Your task to perform on an android device: open sync settings in chrome Image 0: 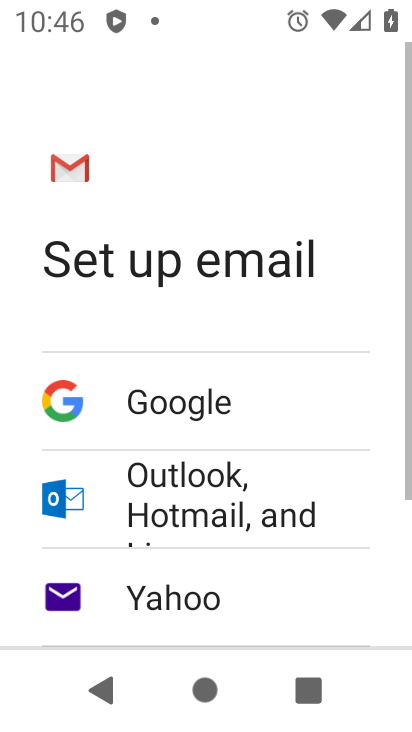
Step 0: press home button
Your task to perform on an android device: open sync settings in chrome Image 1: 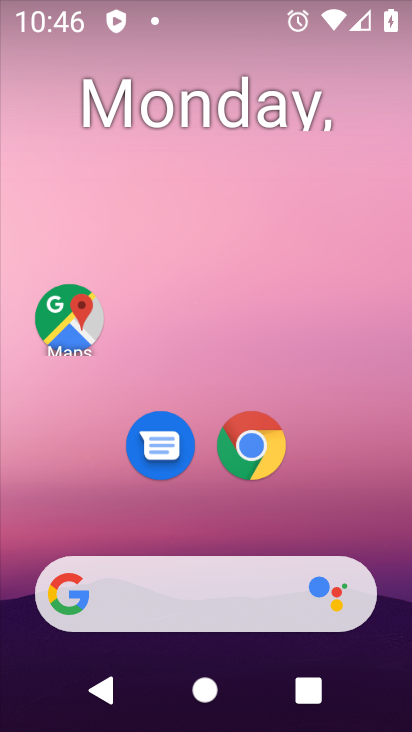
Step 1: click (263, 465)
Your task to perform on an android device: open sync settings in chrome Image 2: 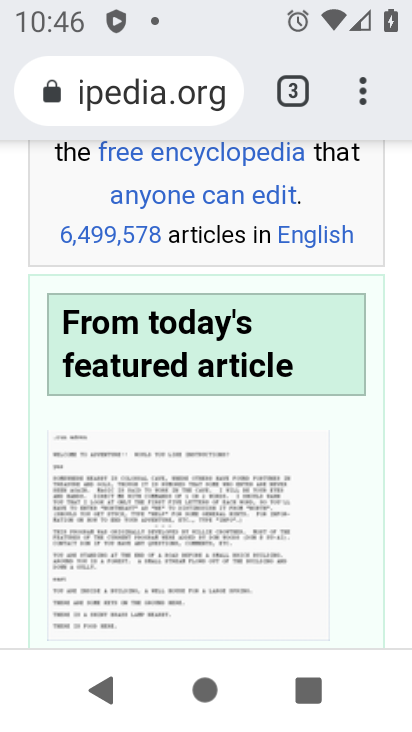
Step 2: click (361, 90)
Your task to perform on an android device: open sync settings in chrome Image 3: 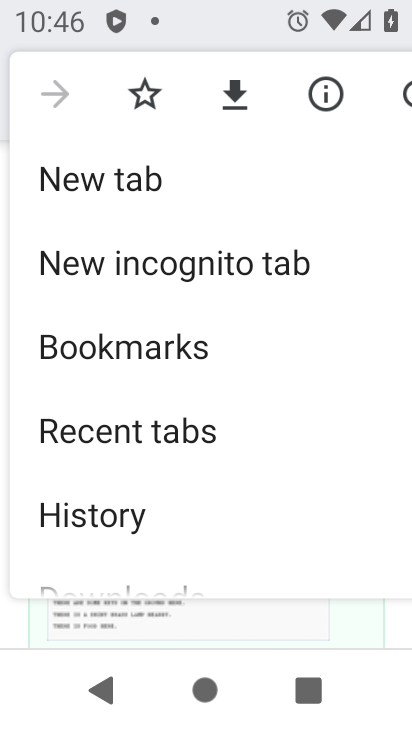
Step 3: drag from (161, 546) to (142, 192)
Your task to perform on an android device: open sync settings in chrome Image 4: 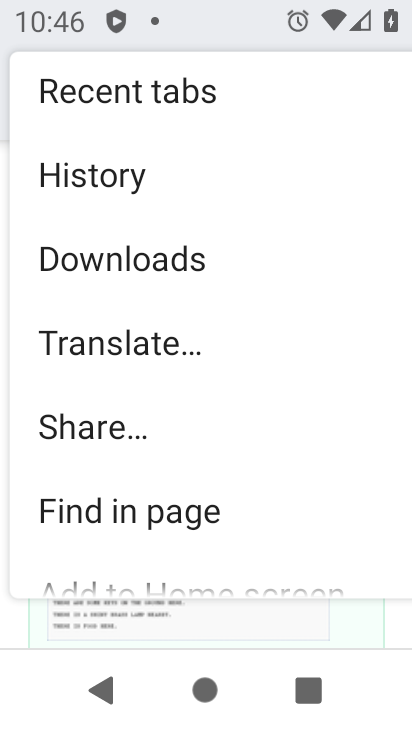
Step 4: drag from (117, 545) to (103, 270)
Your task to perform on an android device: open sync settings in chrome Image 5: 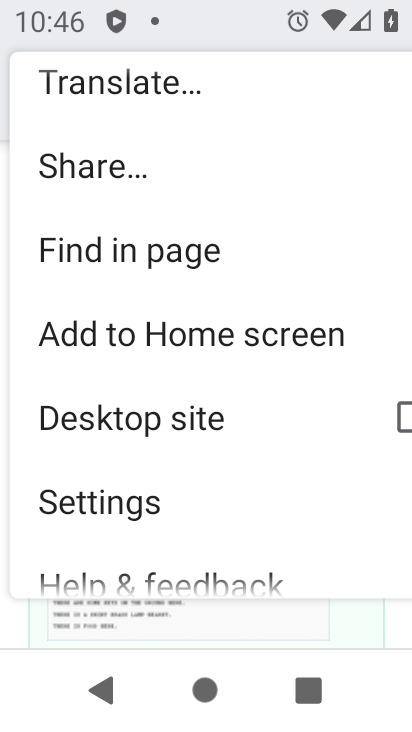
Step 5: click (106, 505)
Your task to perform on an android device: open sync settings in chrome Image 6: 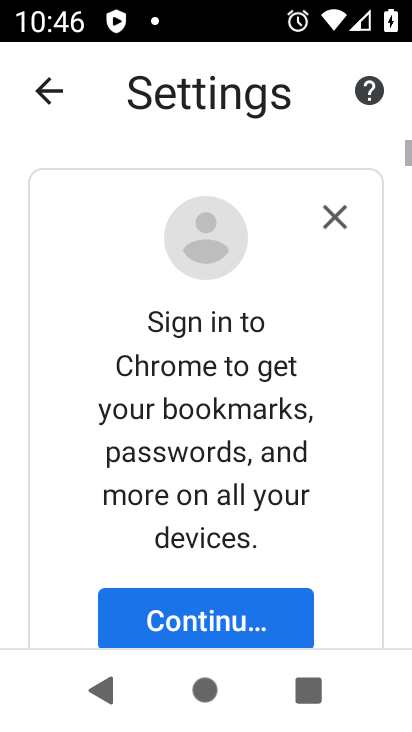
Step 6: drag from (285, 586) to (241, 234)
Your task to perform on an android device: open sync settings in chrome Image 7: 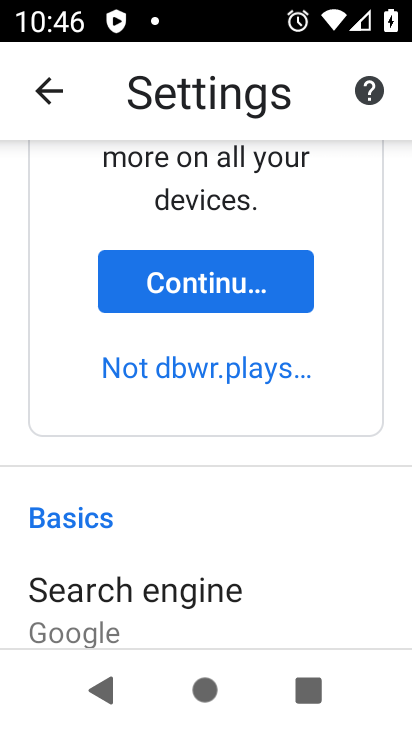
Step 7: drag from (175, 582) to (229, 176)
Your task to perform on an android device: open sync settings in chrome Image 8: 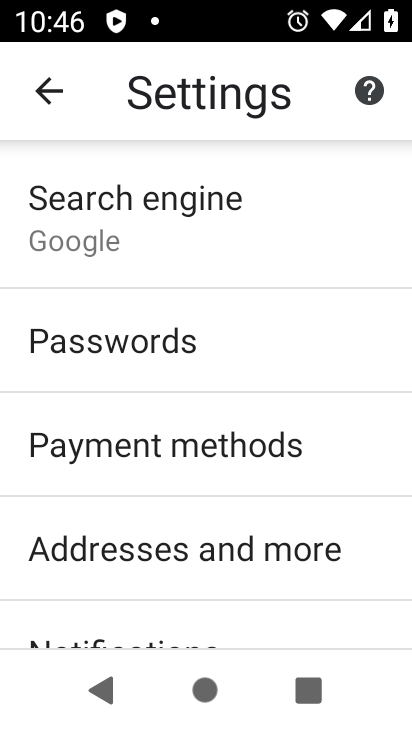
Step 8: drag from (116, 586) to (132, 236)
Your task to perform on an android device: open sync settings in chrome Image 9: 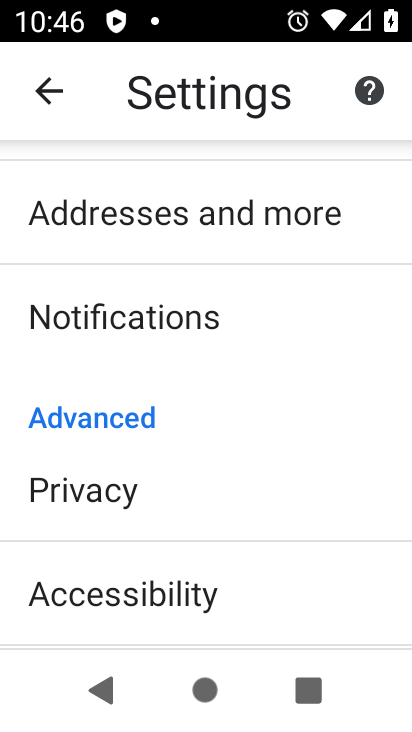
Step 9: drag from (92, 606) to (119, 332)
Your task to perform on an android device: open sync settings in chrome Image 10: 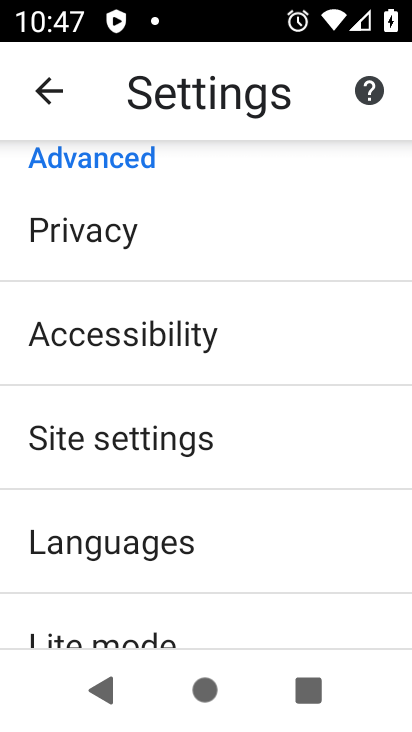
Step 10: click (166, 437)
Your task to perform on an android device: open sync settings in chrome Image 11: 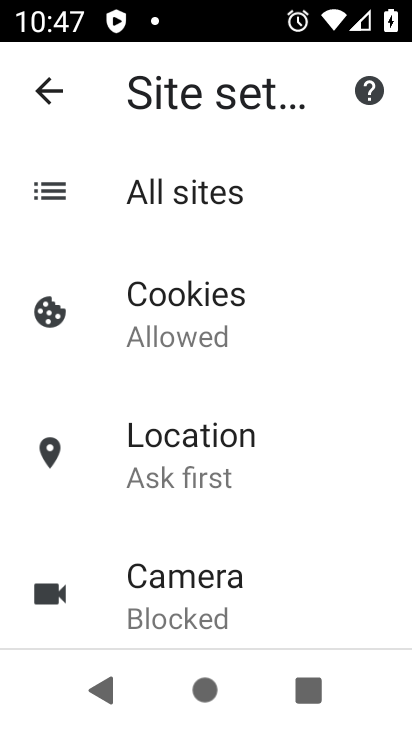
Step 11: drag from (241, 608) to (216, 228)
Your task to perform on an android device: open sync settings in chrome Image 12: 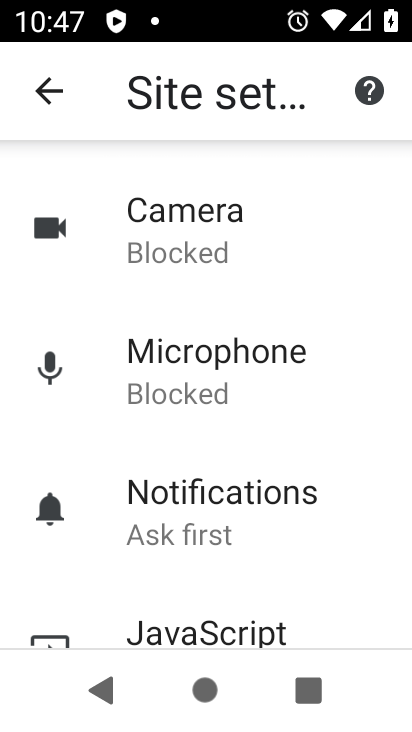
Step 12: drag from (233, 596) to (232, 256)
Your task to perform on an android device: open sync settings in chrome Image 13: 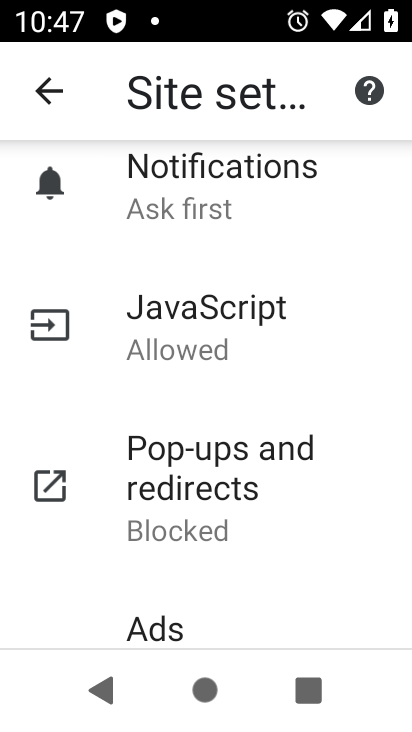
Step 13: drag from (215, 614) to (215, 268)
Your task to perform on an android device: open sync settings in chrome Image 14: 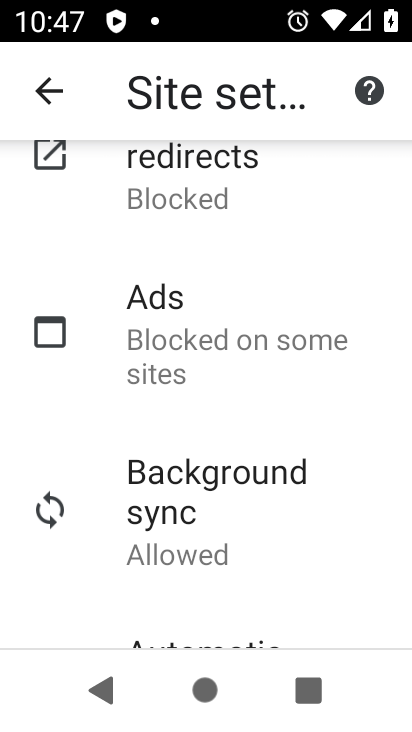
Step 14: click (161, 534)
Your task to perform on an android device: open sync settings in chrome Image 15: 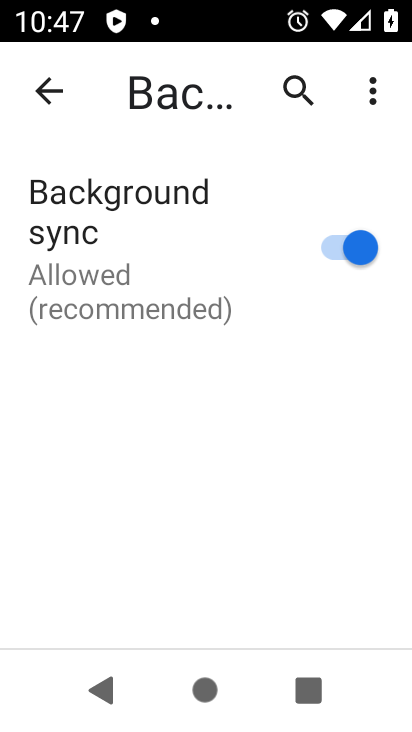
Step 15: task complete